Your task to perform on an android device: change the upload size in google photos Image 0: 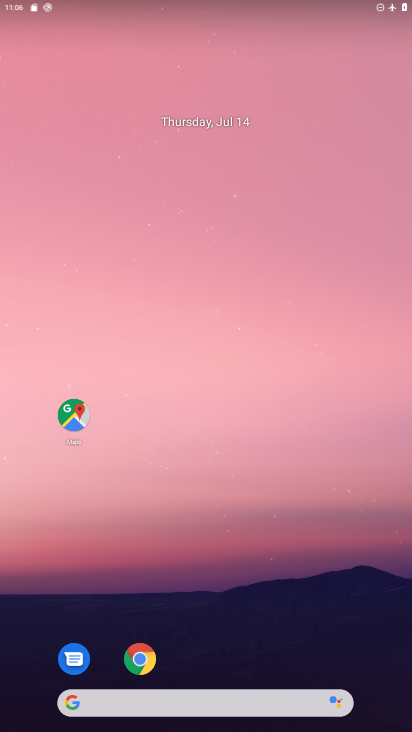
Step 0: drag from (340, 603) to (255, 114)
Your task to perform on an android device: change the upload size in google photos Image 1: 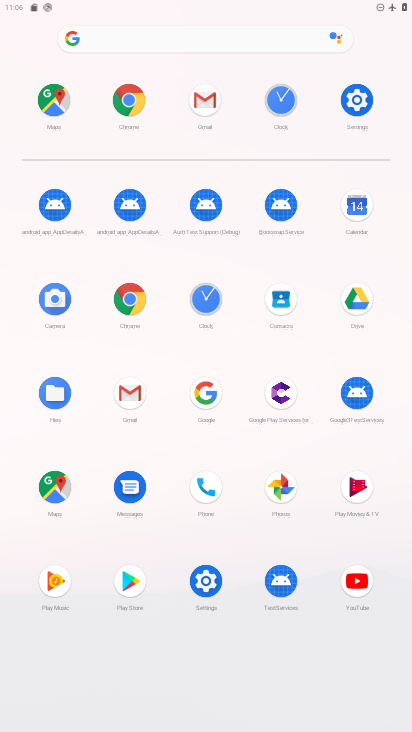
Step 1: click (284, 486)
Your task to perform on an android device: change the upload size in google photos Image 2: 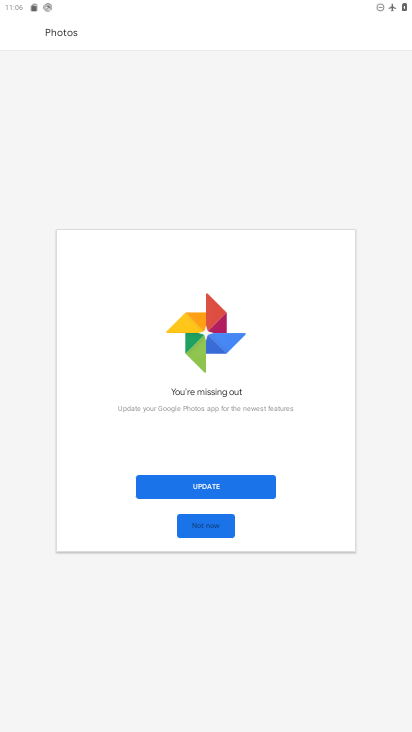
Step 2: click (202, 527)
Your task to perform on an android device: change the upload size in google photos Image 3: 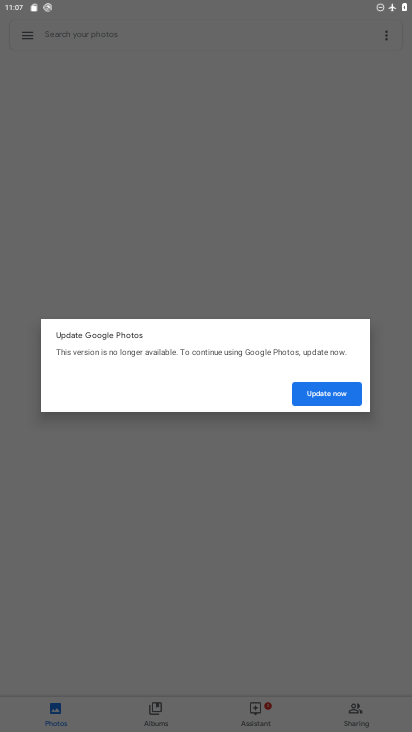
Step 3: click (350, 392)
Your task to perform on an android device: change the upload size in google photos Image 4: 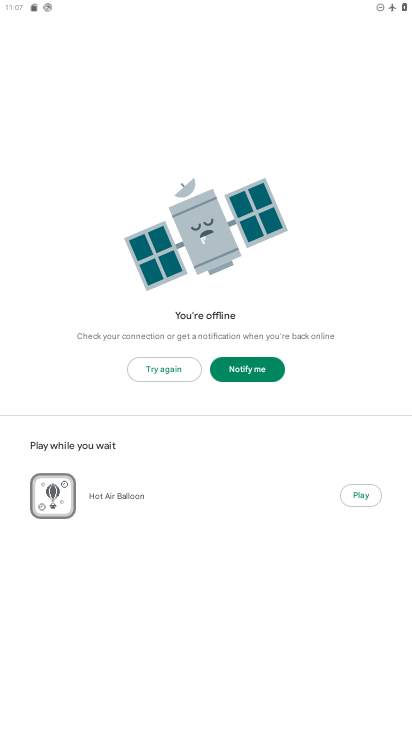
Step 4: task complete